Your task to perform on an android device: uninstall "Airtel Thanks" Image 0: 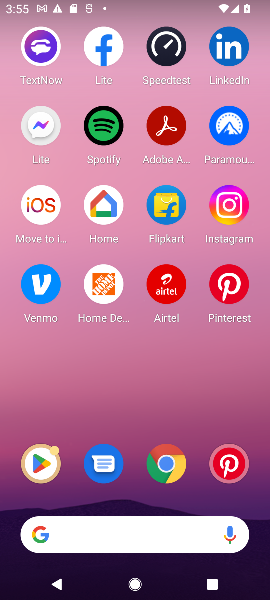
Step 0: drag from (71, 531) to (84, 67)
Your task to perform on an android device: uninstall "Airtel Thanks" Image 1: 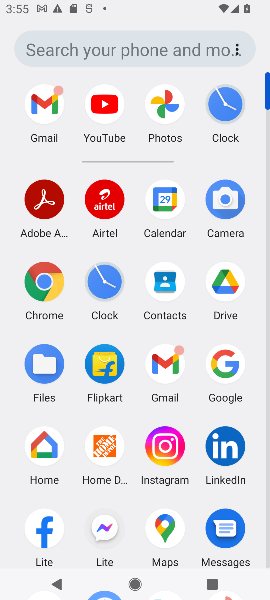
Step 1: drag from (127, 483) to (148, 199)
Your task to perform on an android device: uninstall "Airtel Thanks" Image 2: 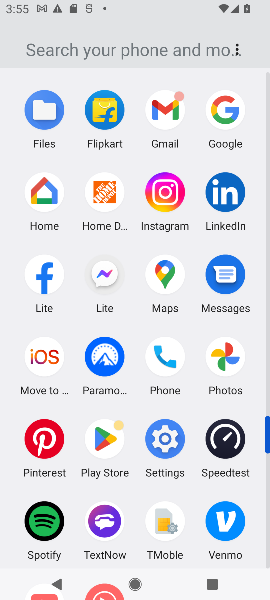
Step 2: click (108, 443)
Your task to perform on an android device: uninstall "Airtel Thanks" Image 3: 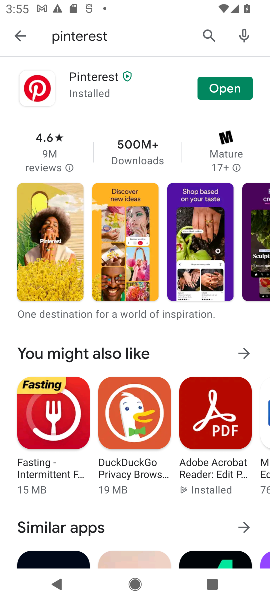
Step 3: click (207, 32)
Your task to perform on an android device: uninstall "Airtel Thanks" Image 4: 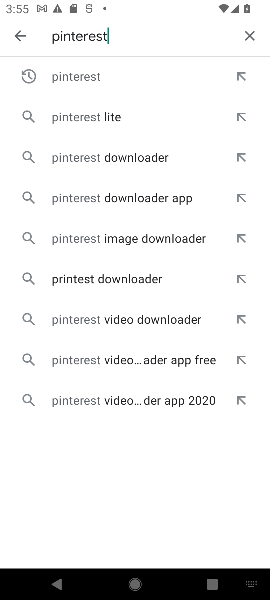
Step 4: click (250, 36)
Your task to perform on an android device: uninstall "Airtel Thanks" Image 5: 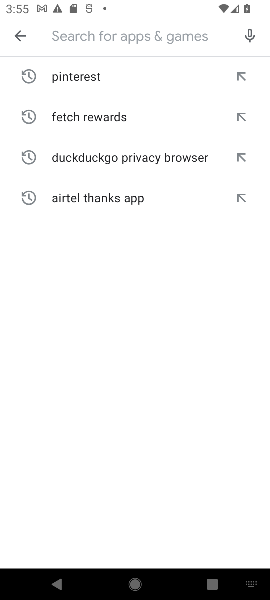
Step 5: type "Airtel Thanks"
Your task to perform on an android device: uninstall "Airtel Thanks" Image 6: 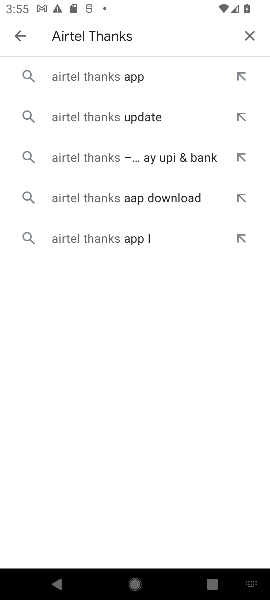
Step 6: click (119, 80)
Your task to perform on an android device: uninstall "Airtel Thanks" Image 7: 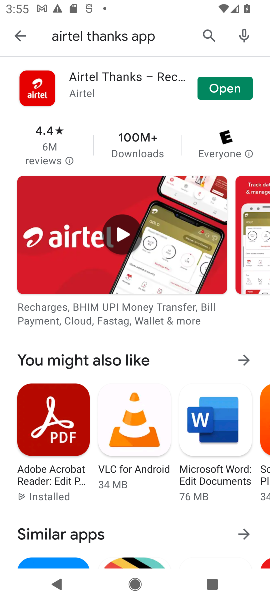
Step 7: click (92, 77)
Your task to perform on an android device: uninstall "Airtel Thanks" Image 8: 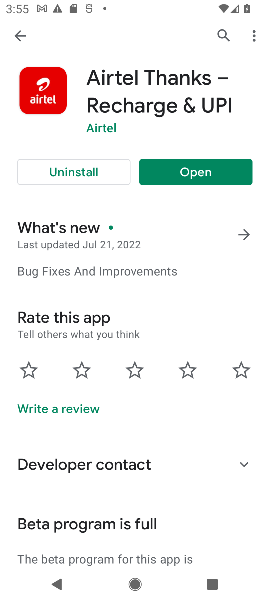
Step 8: click (90, 172)
Your task to perform on an android device: uninstall "Airtel Thanks" Image 9: 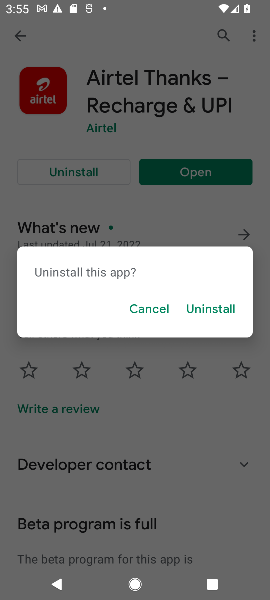
Step 9: click (208, 304)
Your task to perform on an android device: uninstall "Airtel Thanks" Image 10: 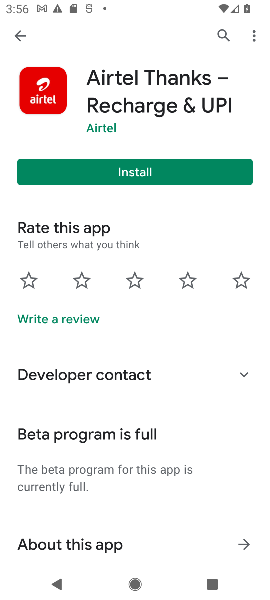
Step 10: task complete